Your task to perform on an android device: Go to internet settings Image 0: 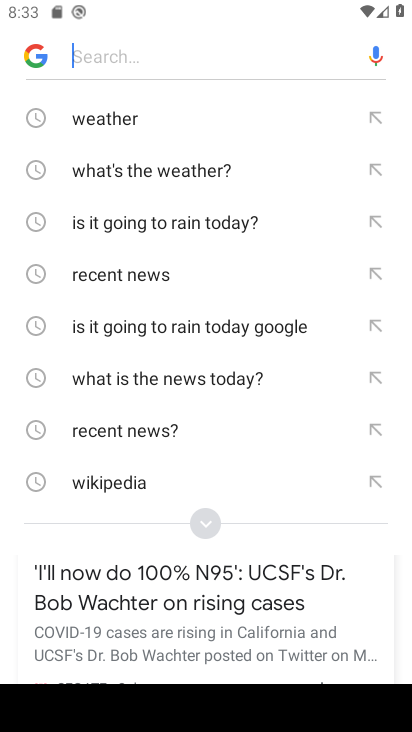
Step 0: press home button
Your task to perform on an android device: Go to internet settings Image 1: 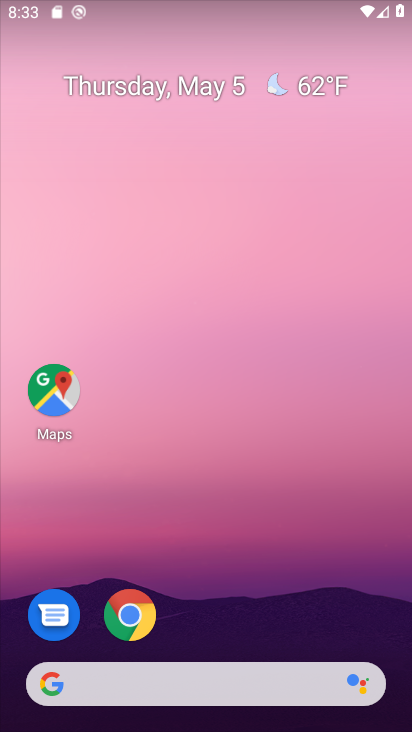
Step 1: drag from (179, 622) to (184, 318)
Your task to perform on an android device: Go to internet settings Image 2: 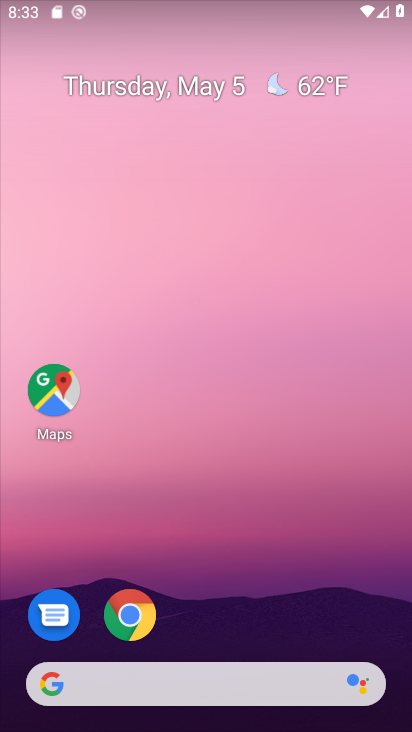
Step 2: drag from (253, 662) to (274, 245)
Your task to perform on an android device: Go to internet settings Image 3: 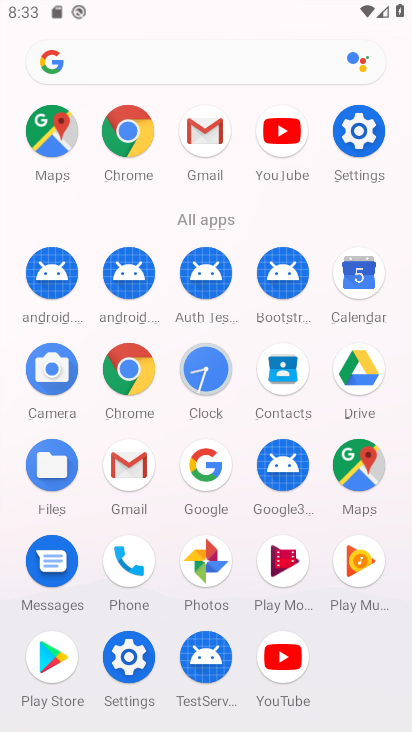
Step 3: click (355, 152)
Your task to perform on an android device: Go to internet settings Image 4: 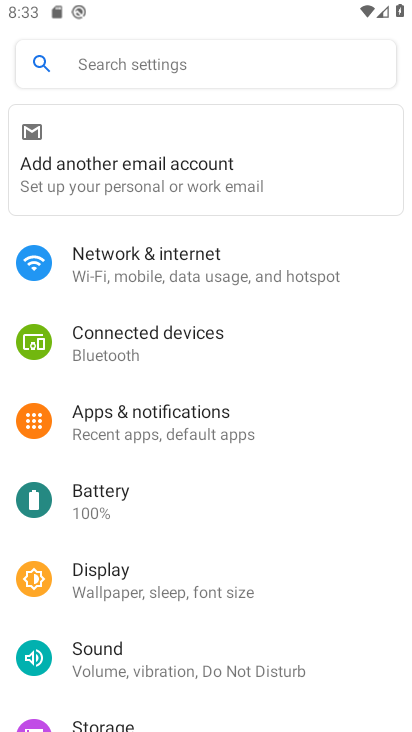
Step 4: click (190, 276)
Your task to perform on an android device: Go to internet settings Image 5: 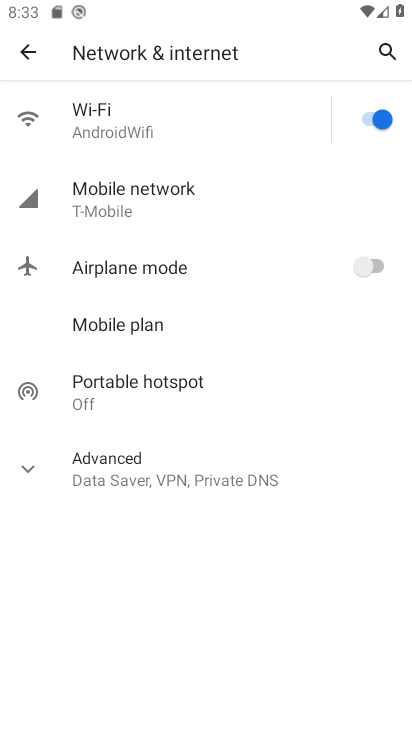
Step 5: click (130, 467)
Your task to perform on an android device: Go to internet settings Image 6: 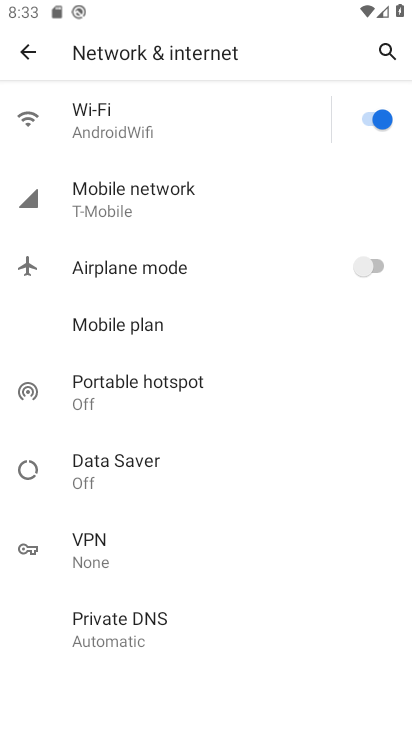
Step 6: task complete